Your task to perform on an android device: open a bookmark in the chrome app Image 0: 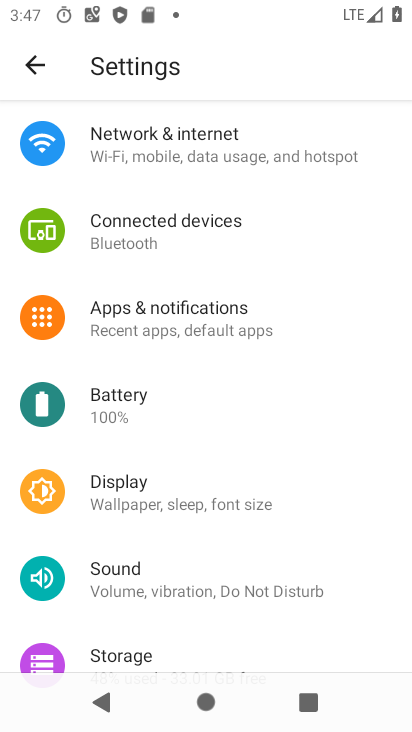
Step 0: press home button
Your task to perform on an android device: open a bookmark in the chrome app Image 1: 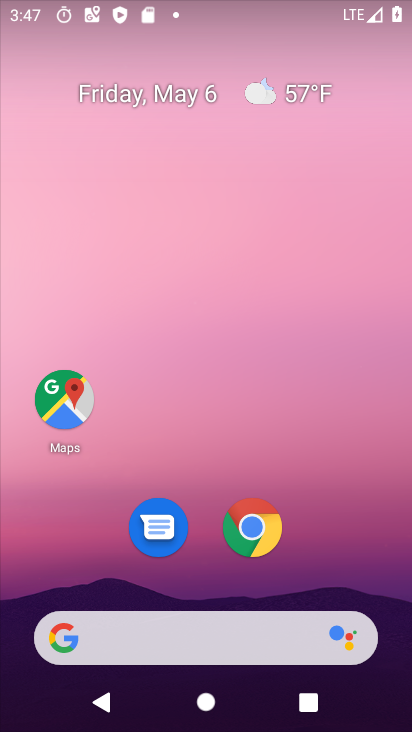
Step 1: click (253, 547)
Your task to perform on an android device: open a bookmark in the chrome app Image 2: 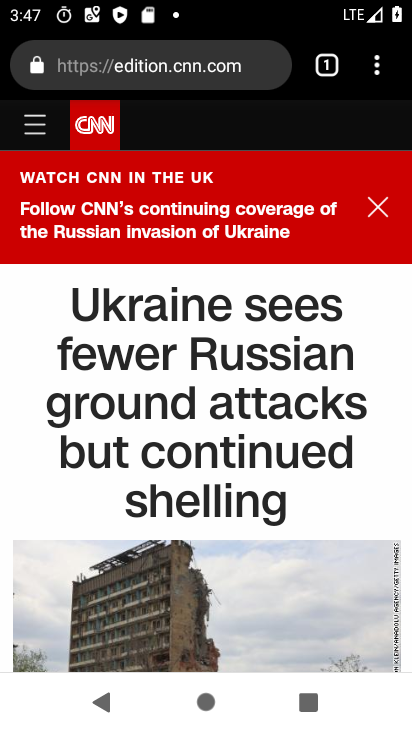
Step 2: click (381, 70)
Your task to perform on an android device: open a bookmark in the chrome app Image 3: 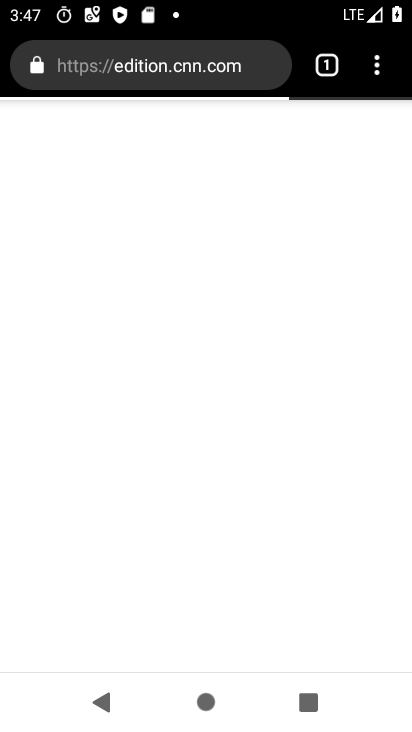
Step 3: click (380, 67)
Your task to perform on an android device: open a bookmark in the chrome app Image 4: 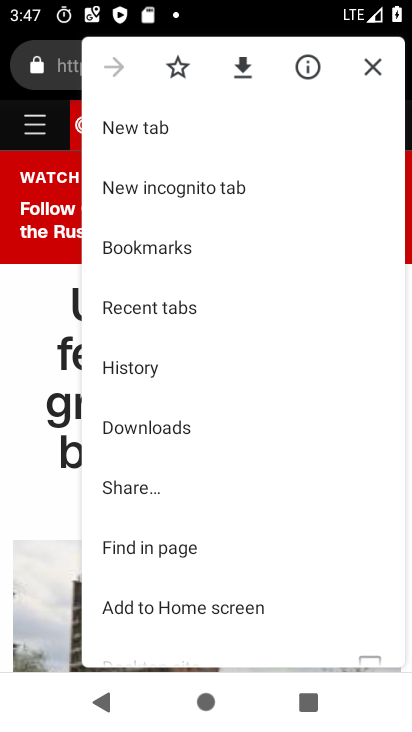
Step 4: click (165, 254)
Your task to perform on an android device: open a bookmark in the chrome app Image 5: 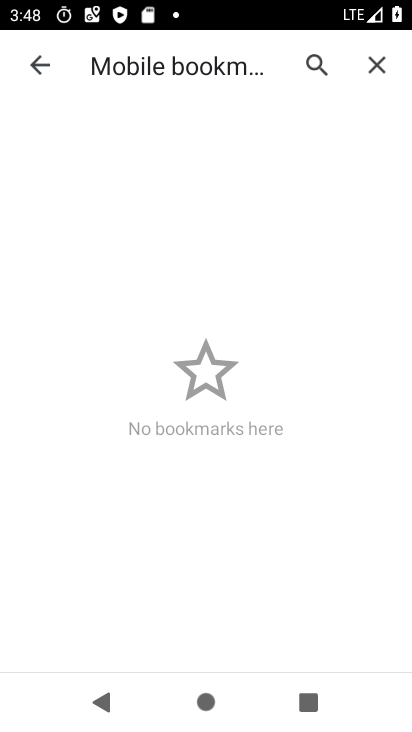
Step 5: task complete